Your task to perform on an android device: clear all cookies in the chrome app Image 0: 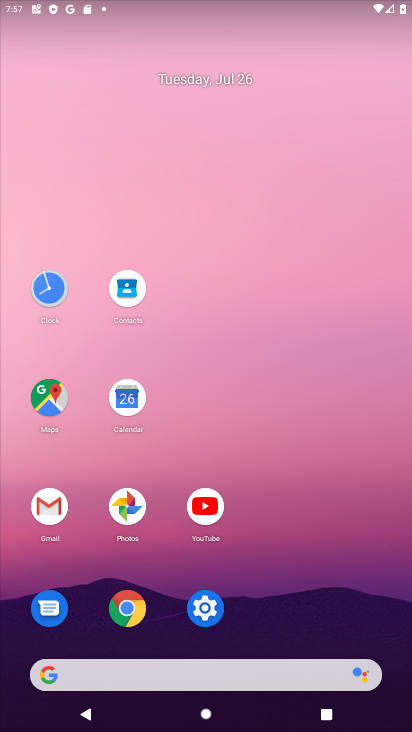
Step 0: click (128, 608)
Your task to perform on an android device: clear all cookies in the chrome app Image 1: 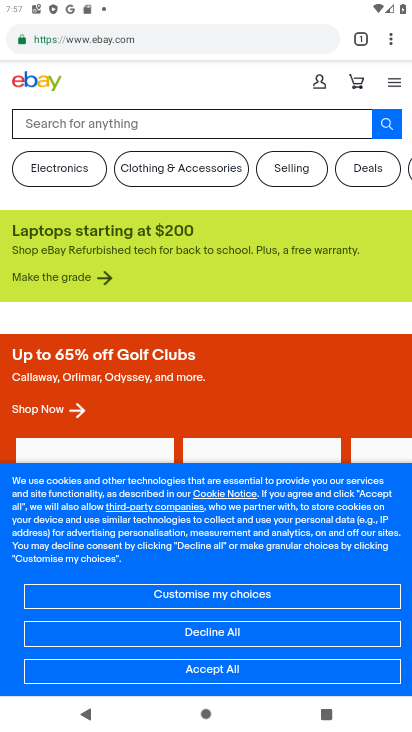
Step 1: click (387, 38)
Your task to perform on an android device: clear all cookies in the chrome app Image 2: 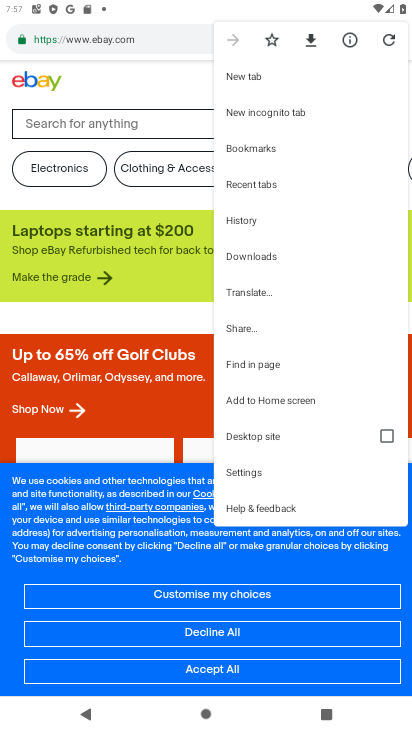
Step 2: click (243, 224)
Your task to perform on an android device: clear all cookies in the chrome app Image 3: 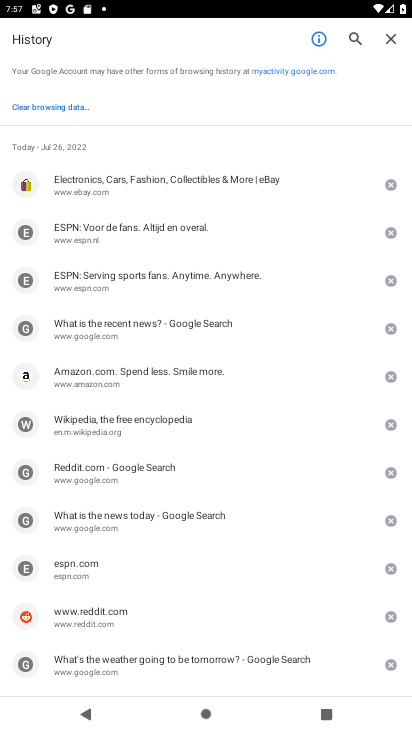
Step 3: click (44, 102)
Your task to perform on an android device: clear all cookies in the chrome app Image 4: 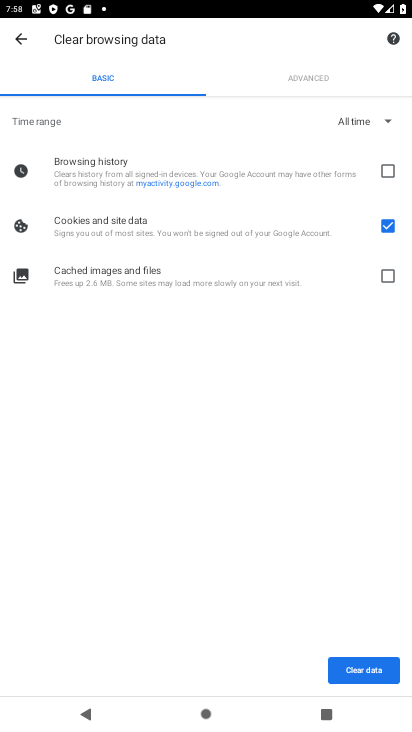
Step 4: click (363, 676)
Your task to perform on an android device: clear all cookies in the chrome app Image 5: 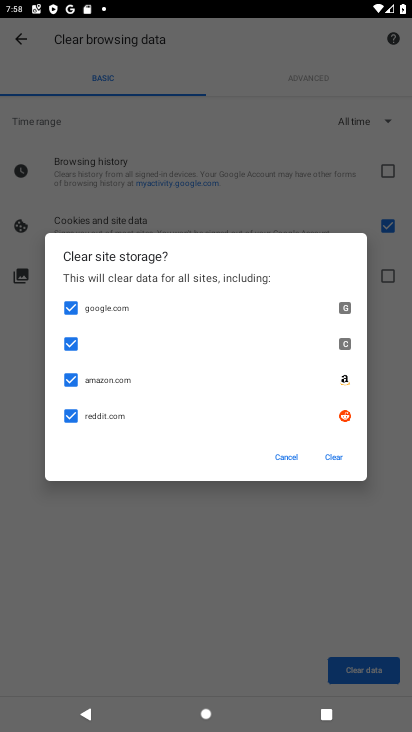
Step 5: click (332, 458)
Your task to perform on an android device: clear all cookies in the chrome app Image 6: 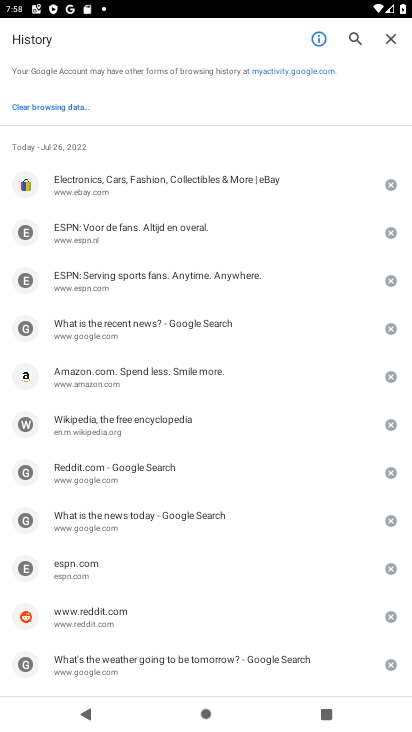
Step 6: task complete